Your task to perform on an android device: Search for pizza restaurants on Maps Image 0: 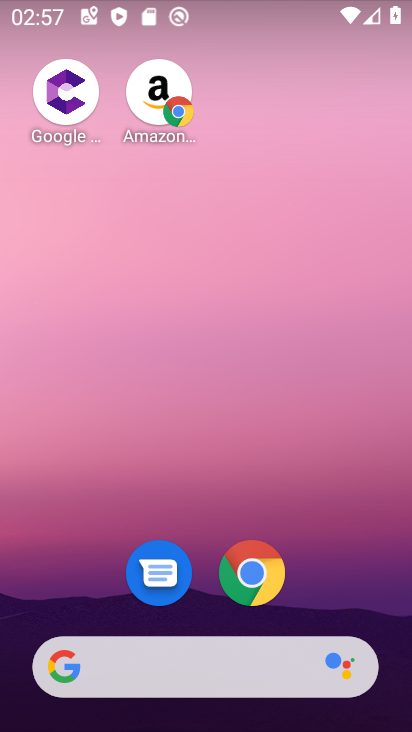
Step 0: drag from (333, 581) to (344, 32)
Your task to perform on an android device: Search for pizza restaurants on Maps Image 1: 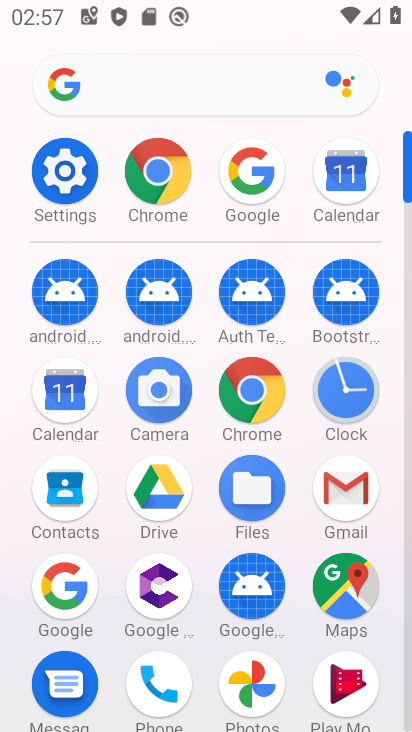
Step 1: click (345, 590)
Your task to perform on an android device: Search for pizza restaurants on Maps Image 2: 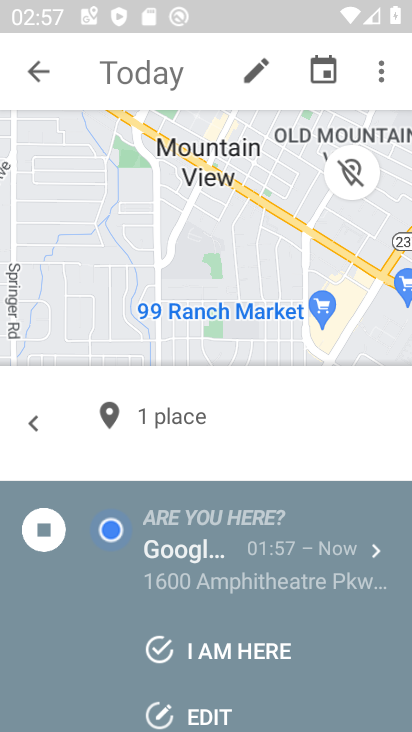
Step 2: press back button
Your task to perform on an android device: Search for pizza restaurants on Maps Image 3: 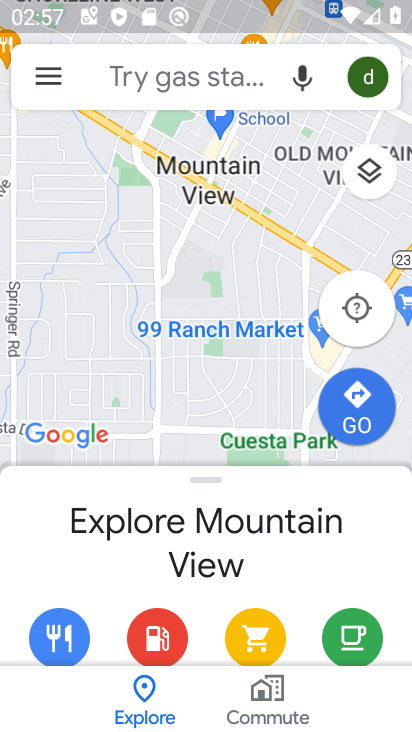
Step 3: click (178, 71)
Your task to perform on an android device: Search for pizza restaurants on Maps Image 4: 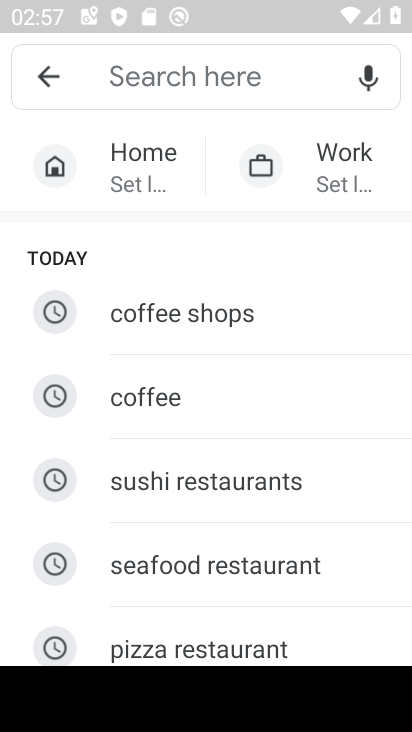
Step 4: type "pizza restaurants"
Your task to perform on an android device: Search for pizza restaurants on Maps Image 5: 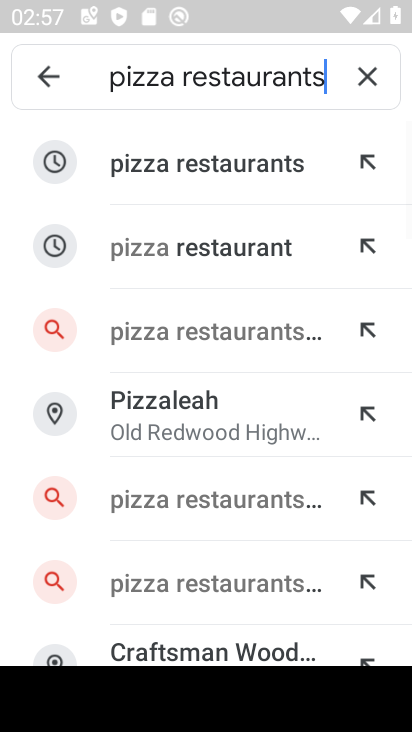
Step 5: click (251, 159)
Your task to perform on an android device: Search for pizza restaurants on Maps Image 6: 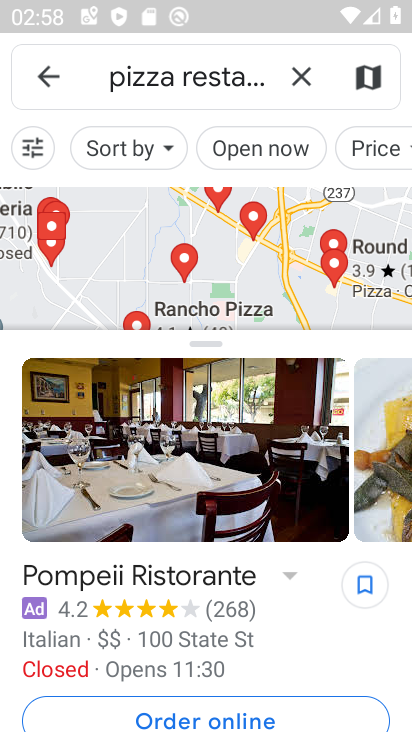
Step 6: task complete